Your task to perform on an android device: Open calendar and show me the first week of next month Image 0: 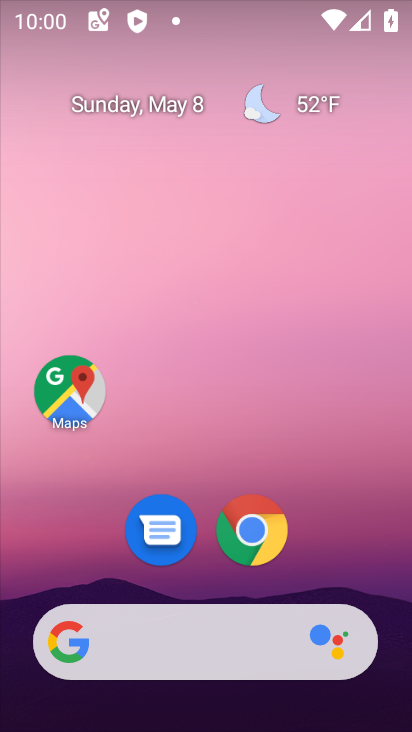
Step 0: drag from (375, 560) to (346, 121)
Your task to perform on an android device: Open calendar and show me the first week of next month Image 1: 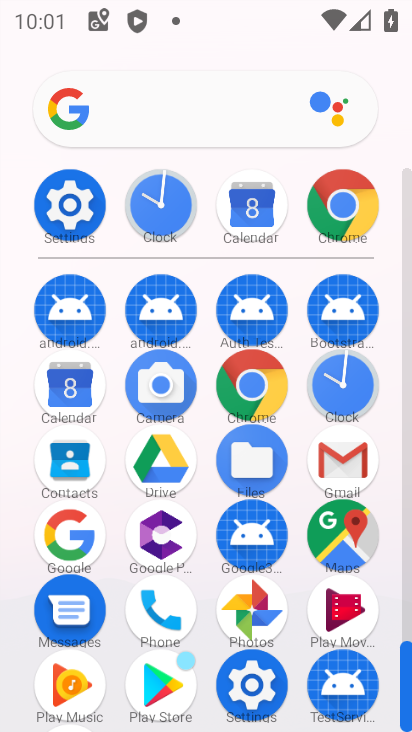
Step 1: click (71, 401)
Your task to perform on an android device: Open calendar and show me the first week of next month Image 2: 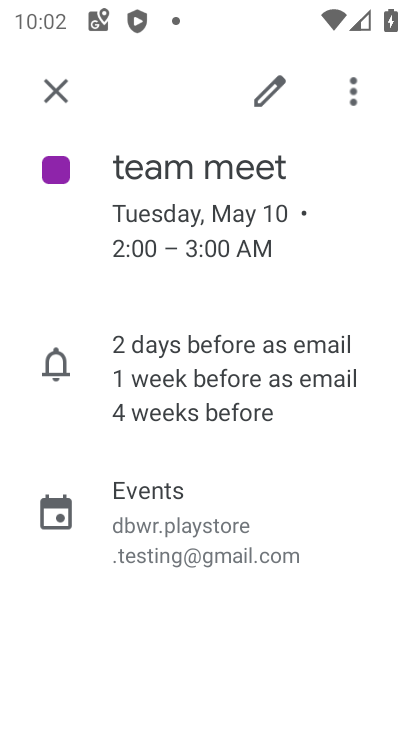
Step 2: click (63, 81)
Your task to perform on an android device: Open calendar and show me the first week of next month Image 3: 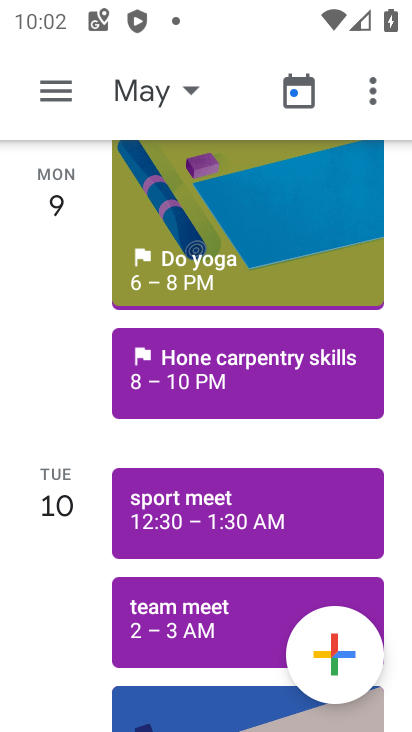
Step 3: click (132, 108)
Your task to perform on an android device: Open calendar and show me the first week of next month Image 4: 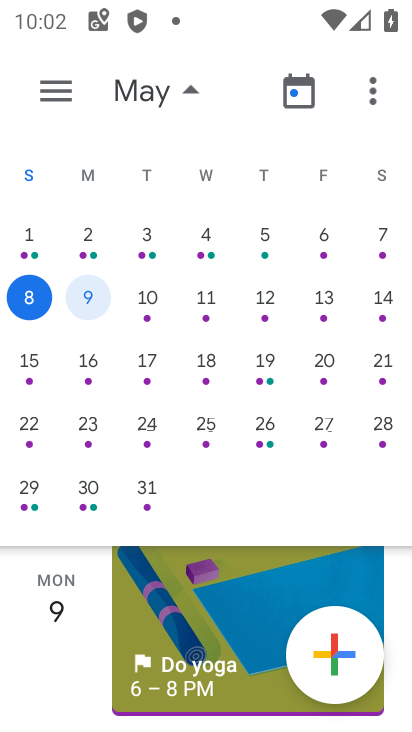
Step 4: task complete